Your task to perform on an android device: turn off airplane mode Image 0: 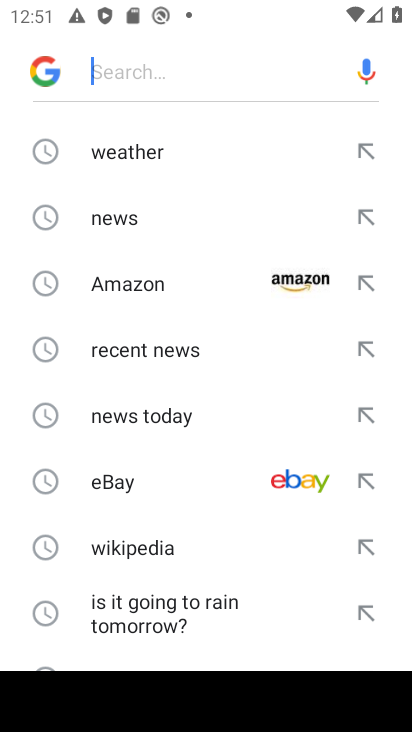
Step 0: press home button
Your task to perform on an android device: turn off airplane mode Image 1: 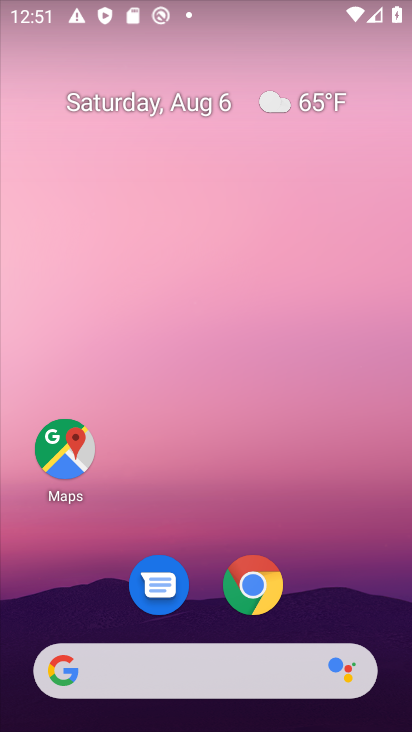
Step 1: drag from (308, 572) to (344, 0)
Your task to perform on an android device: turn off airplane mode Image 2: 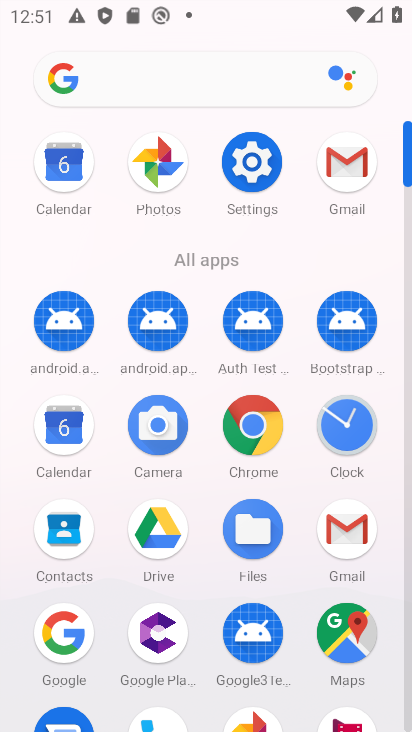
Step 2: click (253, 168)
Your task to perform on an android device: turn off airplane mode Image 3: 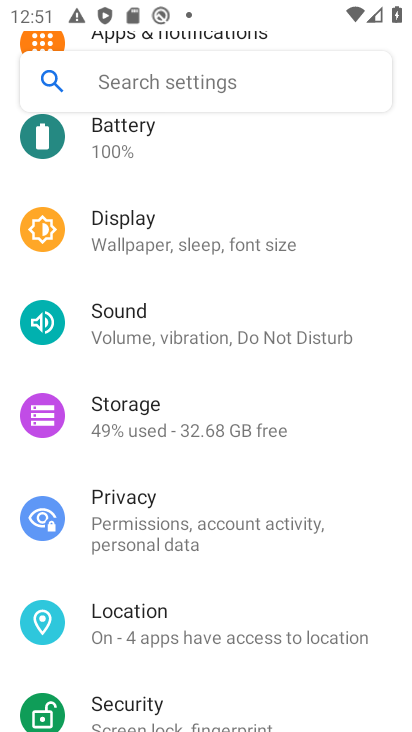
Step 3: drag from (222, 153) to (189, 556)
Your task to perform on an android device: turn off airplane mode Image 4: 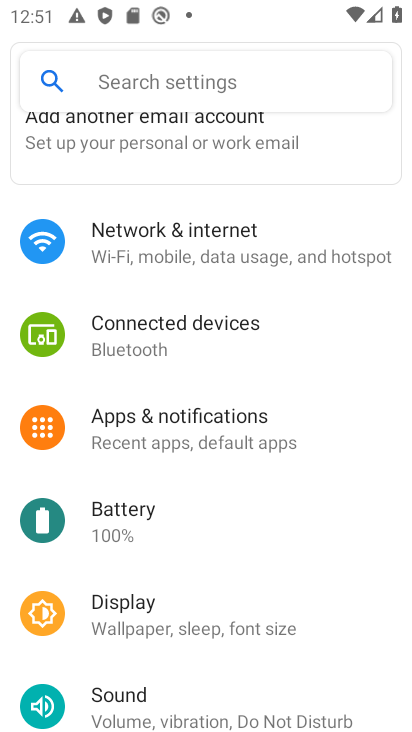
Step 4: click (244, 242)
Your task to perform on an android device: turn off airplane mode Image 5: 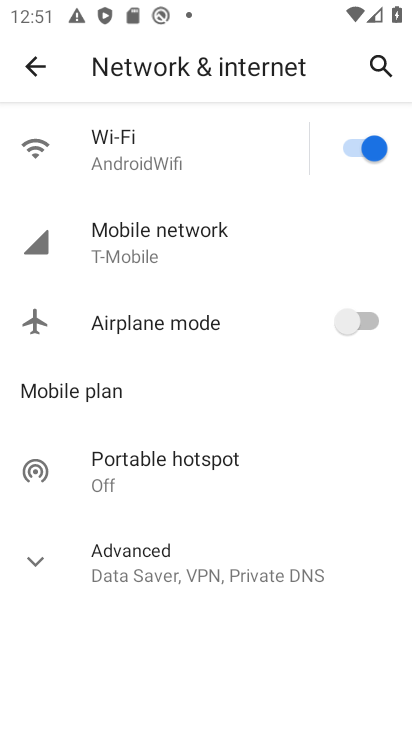
Step 5: task complete